Your task to perform on an android device: toggle sleep mode Image 0: 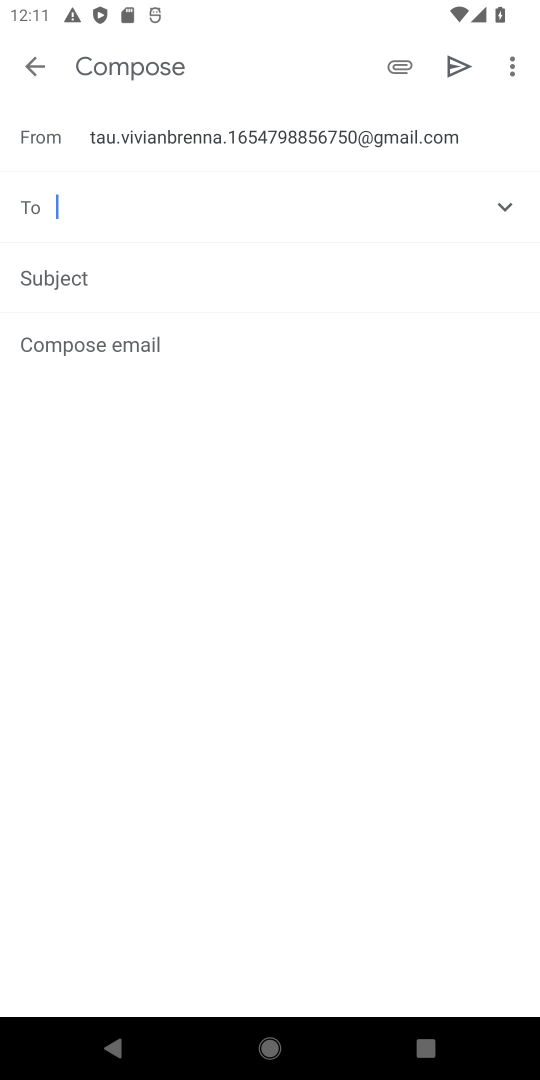
Step 0: press home button
Your task to perform on an android device: toggle sleep mode Image 1: 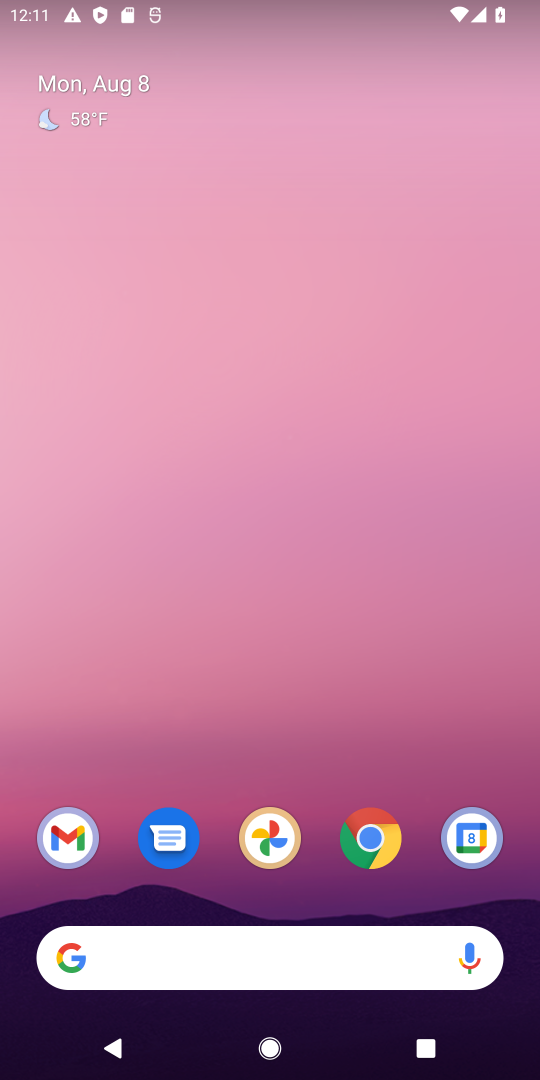
Step 1: drag from (331, 865) to (349, 154)
Your task to perform on an android device: toggle sleep mode Image 2: 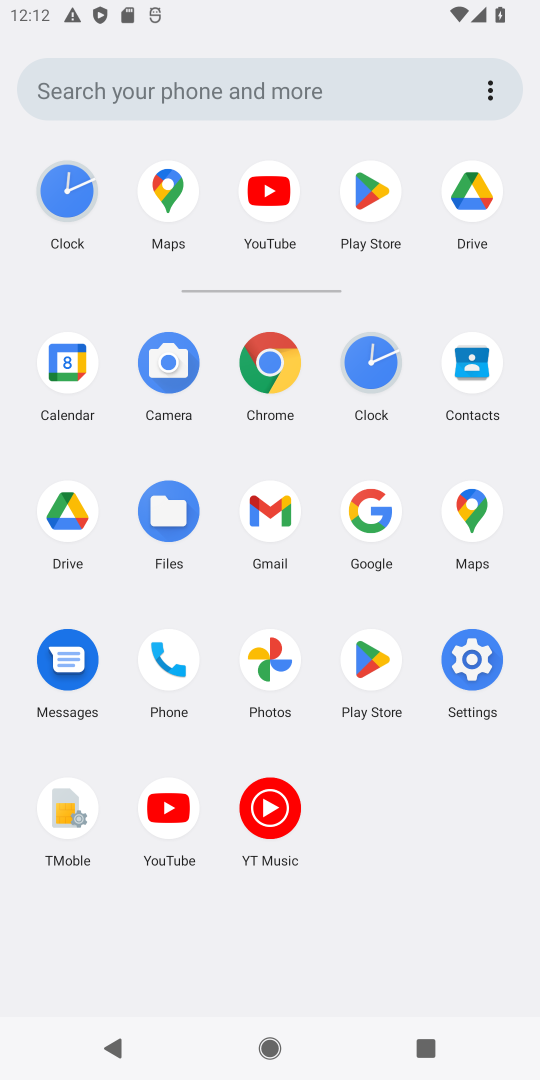
Step 2: click (477, 669)
Your task to perform on an android device: toggle sleep mode Image 3: 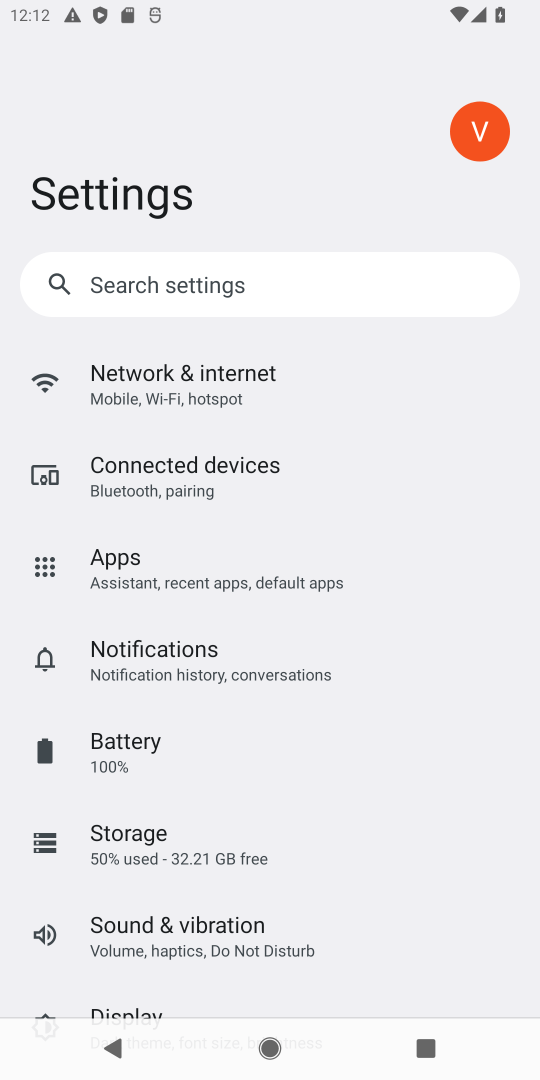
Step 3: drag from (375, 880) to (407, 329)
Your task to perform on an android device: toggle sleep mode Image 4: 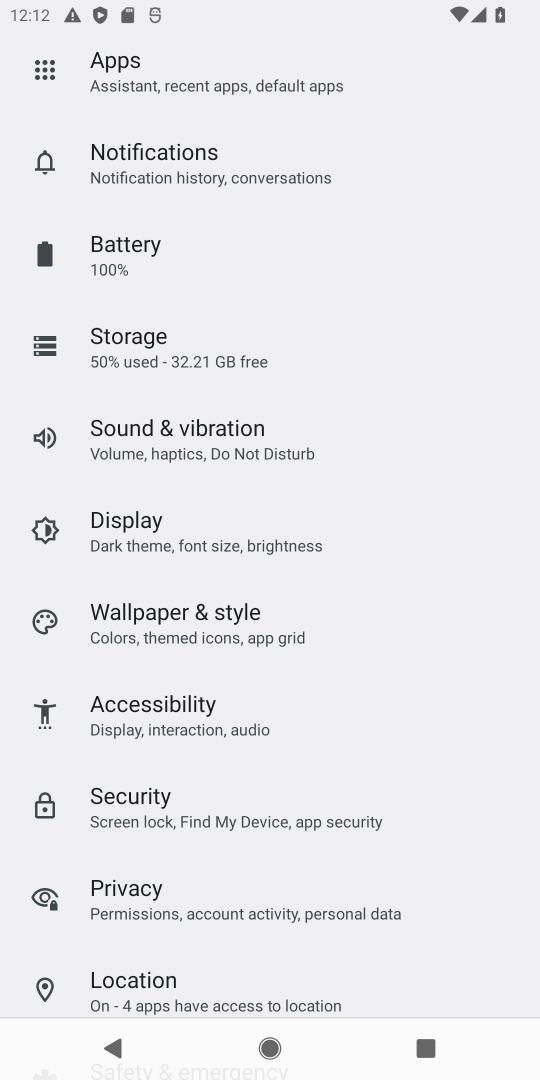
Step 4: click (137, 539)
Your task to perform on an android device: toggle sleep mode Image 5: 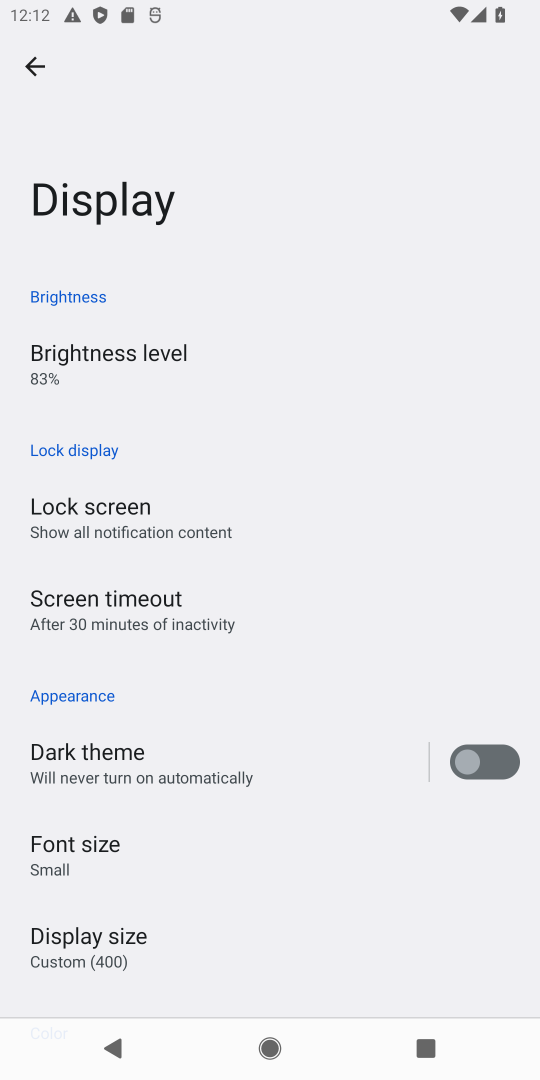
Step 5: task complete